Your task to perform on an android device: Open calendar and show me the second week of next month Image 0: 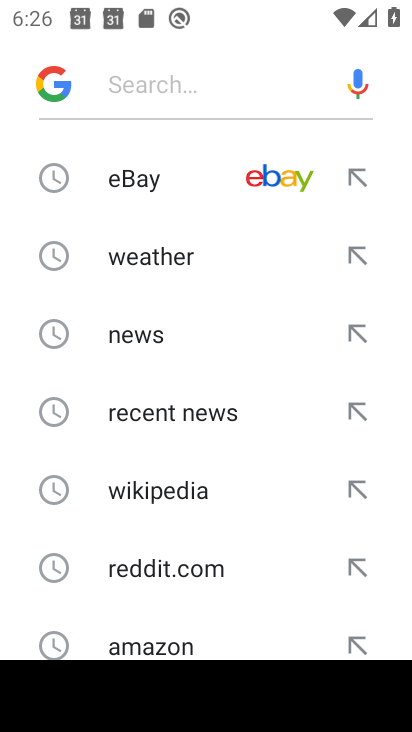
Step 0: press home button
Your task to perform on an android device: Open calendar and show me the second week of next month Image 1: 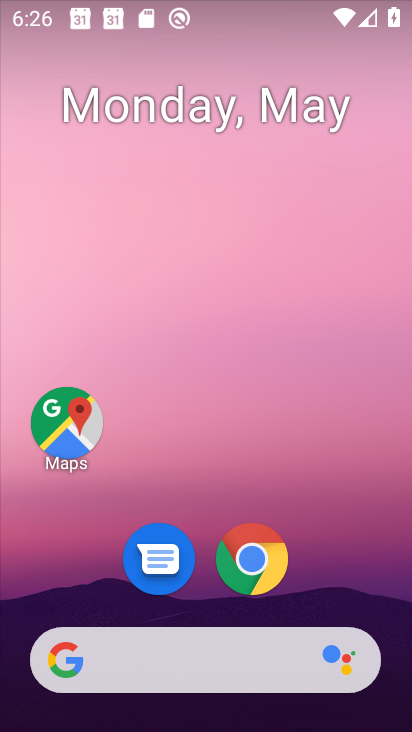
Step 1: drag from (411, 645) to (391, 64)
Your task to perform on an android device: Open calendar and show me the second week of next month Image 2: 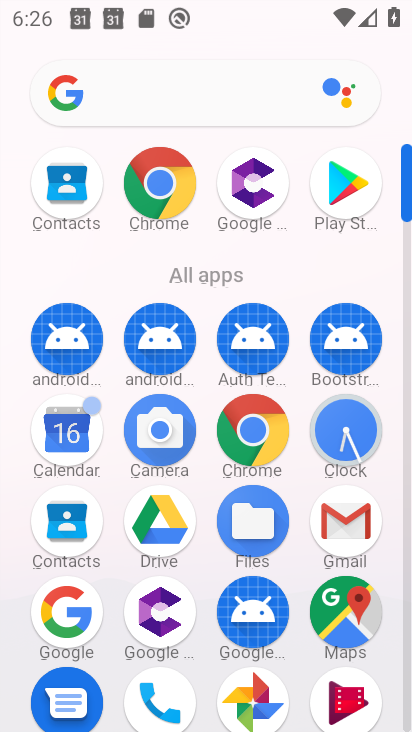
Step 2: click (75, 442)
Your task to perform on an android device: Open calendar and show me the second week of next month Image 3: 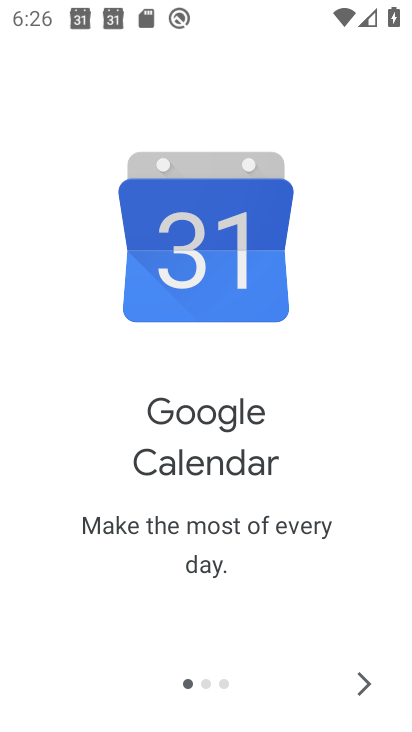
Step 3: click (358, 678)
Your task to perform on an android device: Open calendar and show me the second week of next month Image 4: 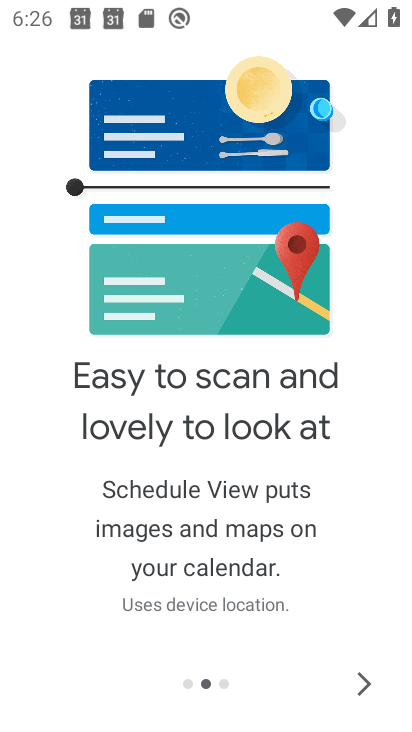
Step 4: click (358, 678)
Your task to perform on an android device: Open calendar and show me the second week of next month Image 5: 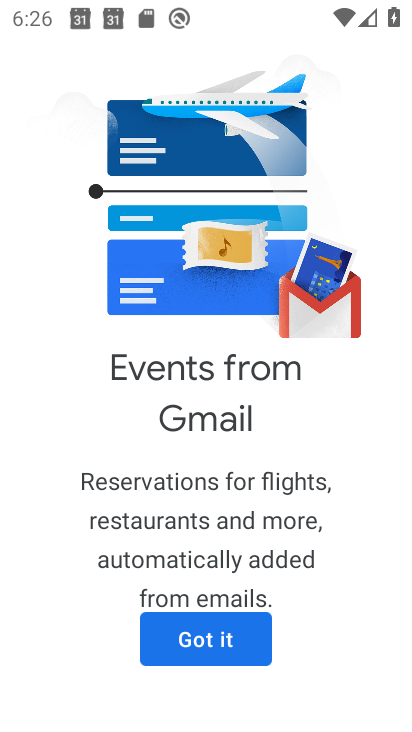
Step 5: click (358, 678)
Your task to perform on an android device: Open calendar and show me the second week of next month Image 6: 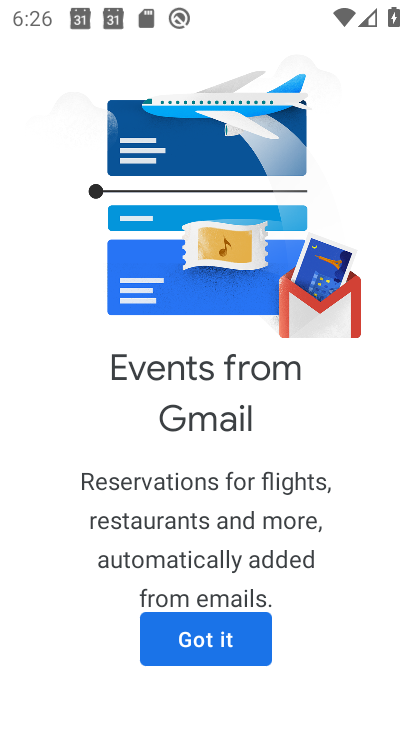
Step 6: click (233, 664)
Your task to perform on an android device: Open calendar and show me the second week of next month Image 7: 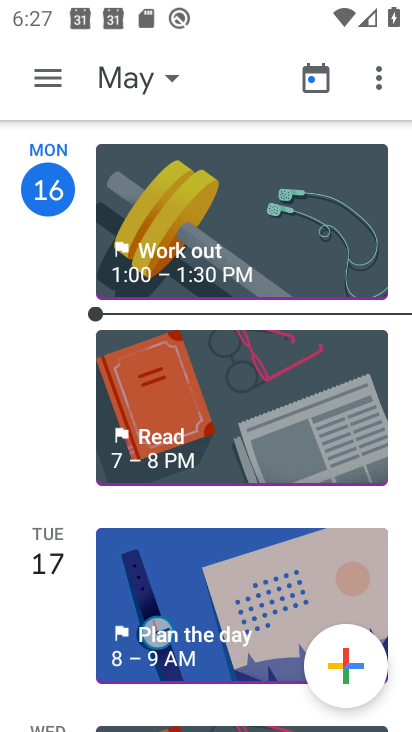
Step 7: click (125, 72)
Your task to perform on an android device: Open calendar and show me the second week of next month Image 8: 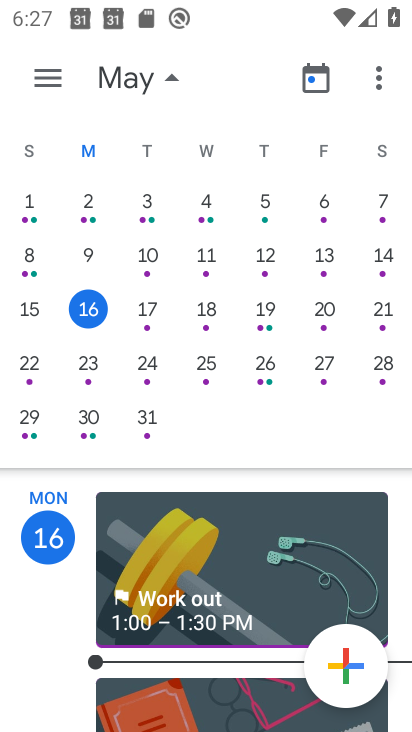
Step 8: drag from (382, 300) to (50, 223)
Your task to perform on an android device: Open calendar and show me the second week of next month Image 9: 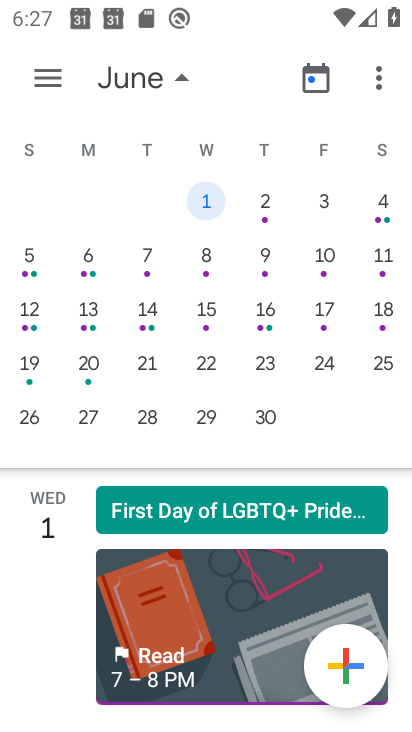
Step 9: click (82, 314)
Your task to perform on an android device: Open calendar and show me the second week of next month Image 10: 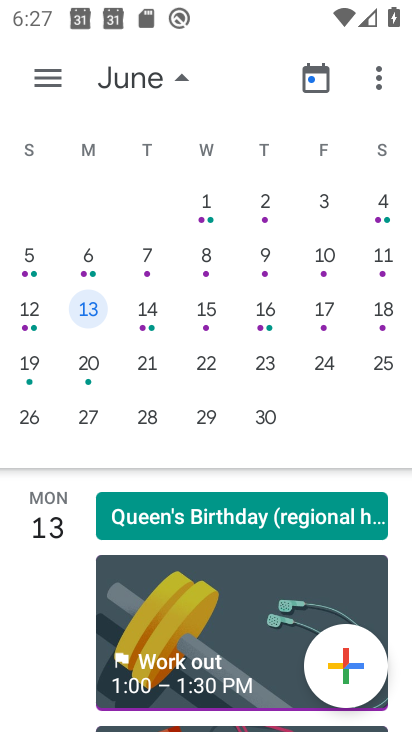
Step 10: task complete